Your task to perform on an android device: open chrome and create a bookmark for the current page Image 0: 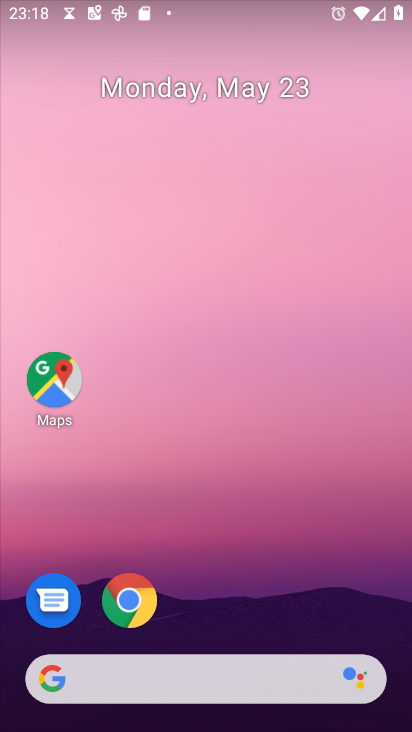
Step 0: click (129, 605)
Your task to perform on an android device: open chrome and create a bookmark for the current page Image 1: 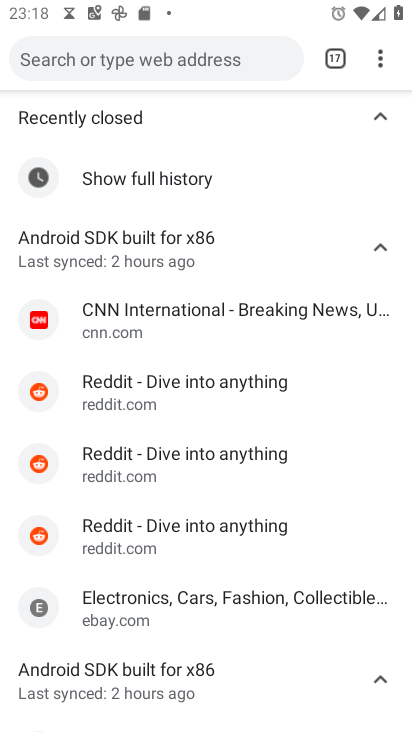
Step 1: click (379, 61)
Your task to perform on an android device: open chrome and create a bookmark for the current page Image 2: 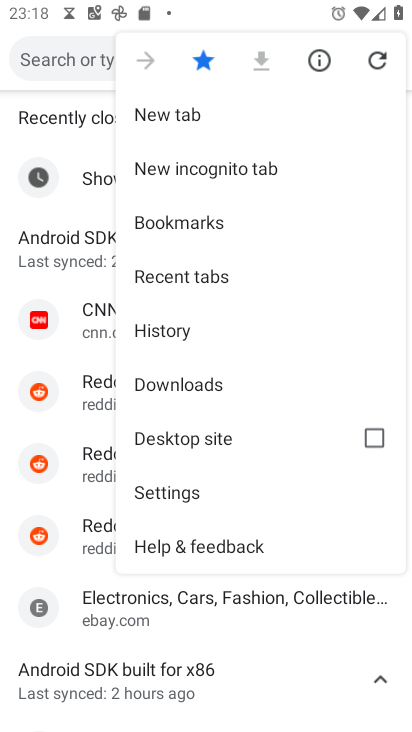
Step 2: click (140, 62)
Your task to perform on an android device: open chrome and create a bookmark for the current page Image 3: 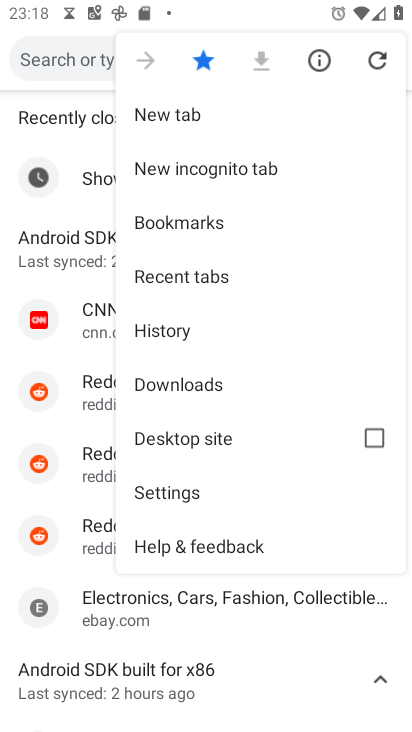
Step 3: task complete